Your task to perform on an android device: check data usage Image 0: 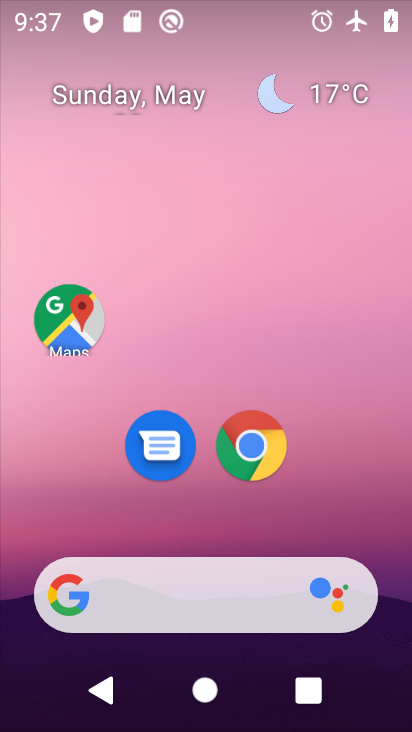
Step 0: drag from (177, 524) to (233, 262)
Your task to perform on an android device: check data usage Image 1: 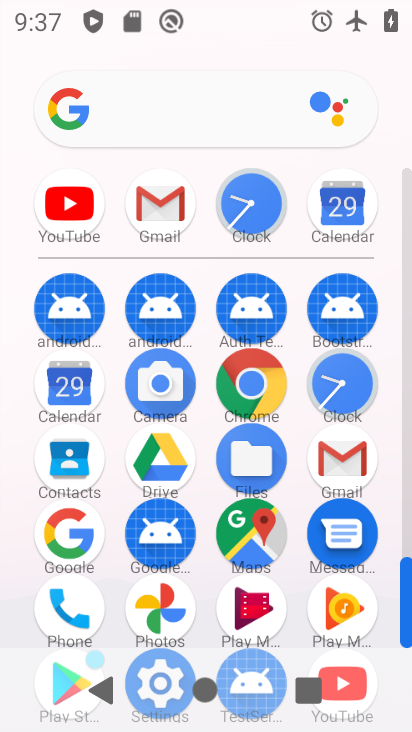
Step 1: drag from (200, 596) to (248, 339)
Your task to perform on an android device: check data usage Image 2: 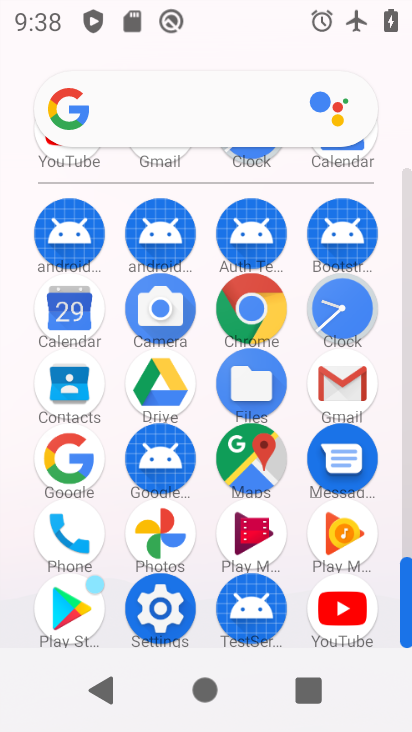
Step 2: click (166, 618)
Your task to perform on an android device: check data usage Image 3: 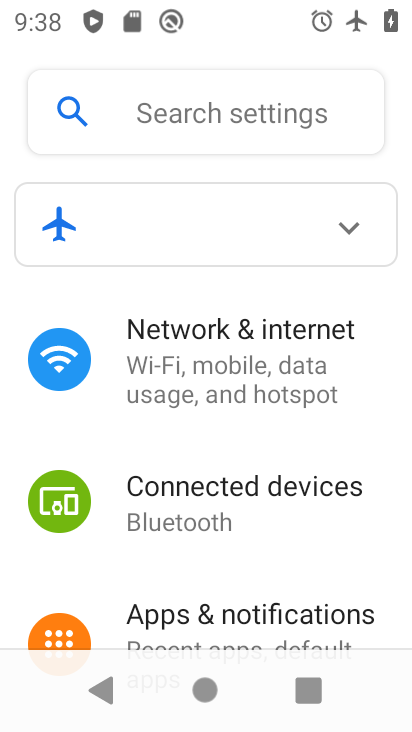
Step 3: click (206, 375)
Your task to perform on an android device: check data usage Image 4: 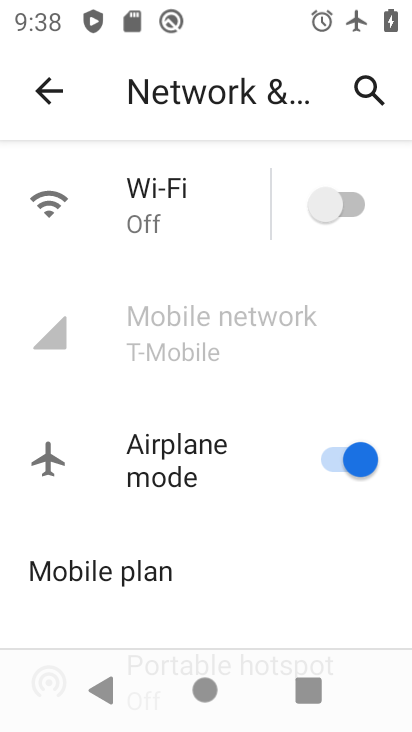
Step 4: drag from (118, 490) to (299, 241)
Your task to perform on an android device: check data usage Image 5: 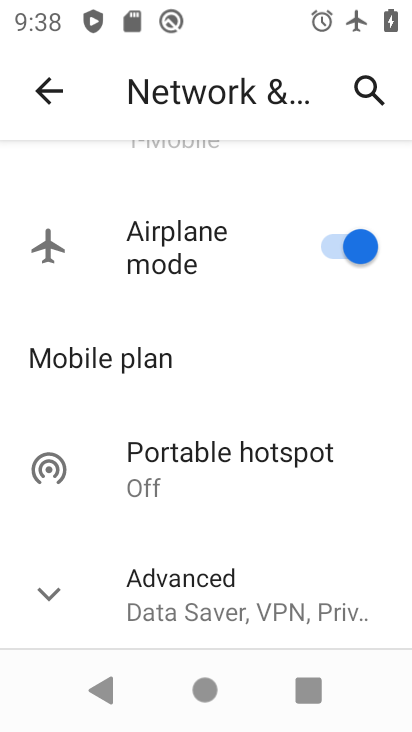
Step 5: drag from (269, 247) to (393, 587)
Your task to perform on an android device: check data usage Image 6: 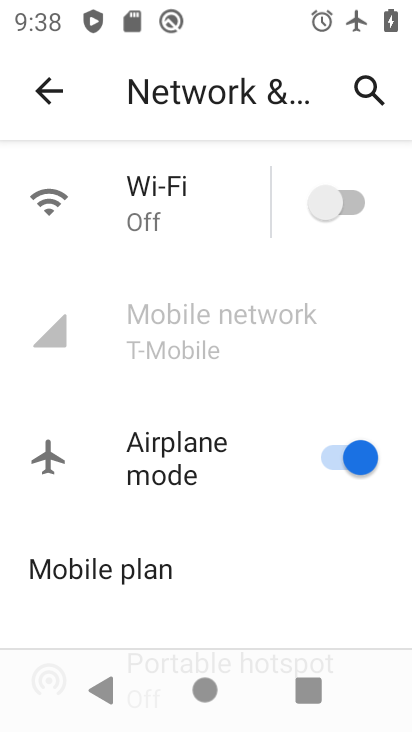
Step 6: click (226, 329)
Your task to perform on an android device: check data usage Image 7: 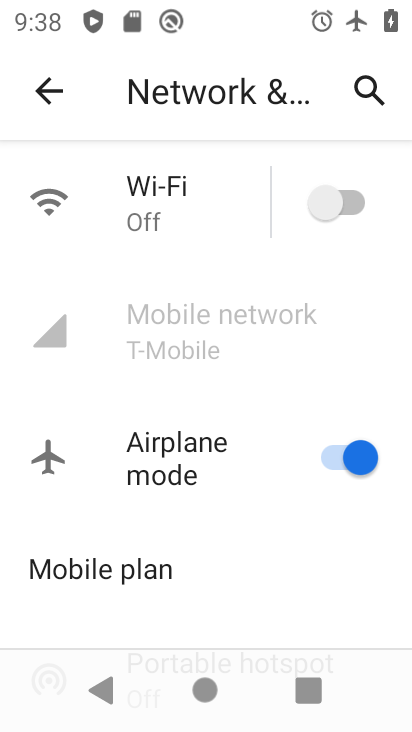
Step 7: click (322, 372)
Your task to perform on an android device: check data usage Image 8: 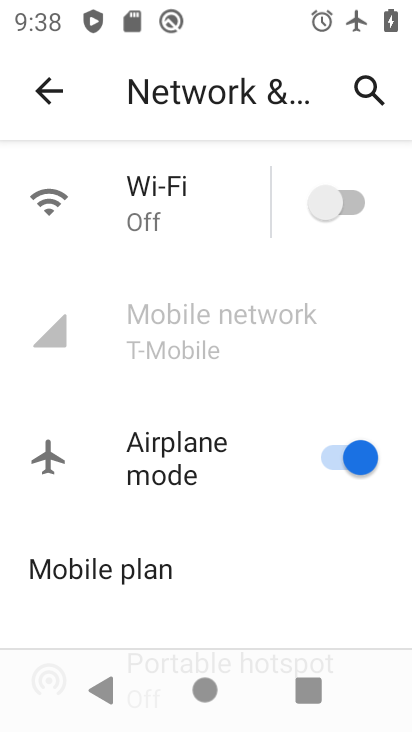
Step 8: task complete